Your task to perform on an android device: See recent photos Image 0: 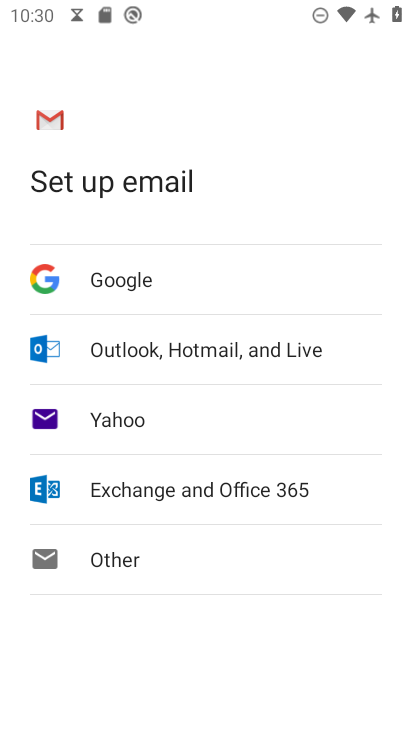
Step 0: press home button
Your task to perform on an android device: See recent photos Image 1: 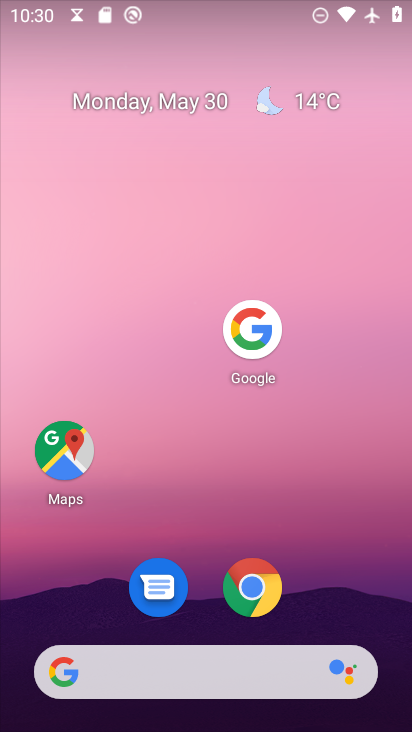
Step 1: drag from (208, 664) to (317, 103)
Your task to perform on an android device: See recent photos Image 2: 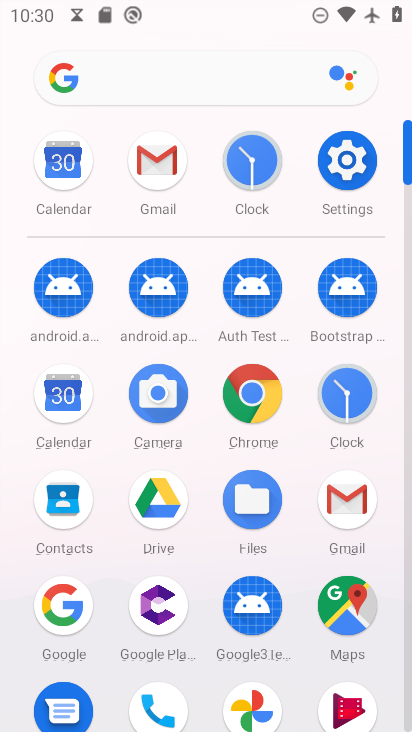
Step 2: drag from (207, 657) to (302, 259)
Your task to perform on an android device: See recent photos Image 3: 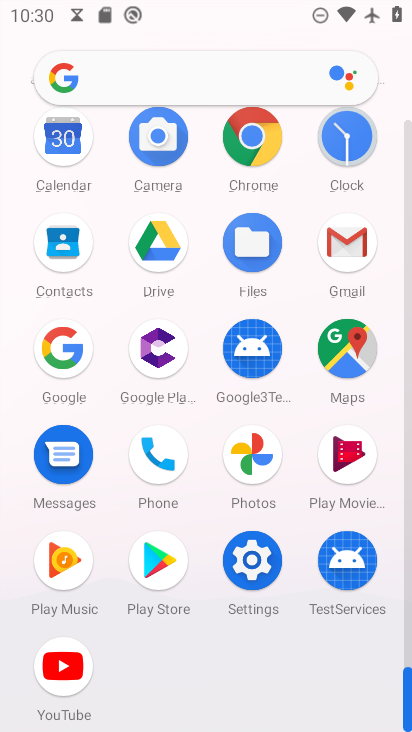
Step 3: click (256, 447)
Your task to perform on an android device: See recent photos Image 4: 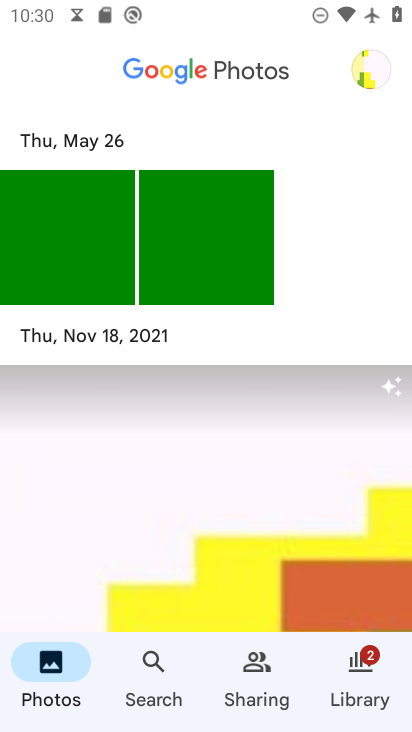
Step 4: click (145, 687)
Your task to perform on an android device: See recent photos Image 5: 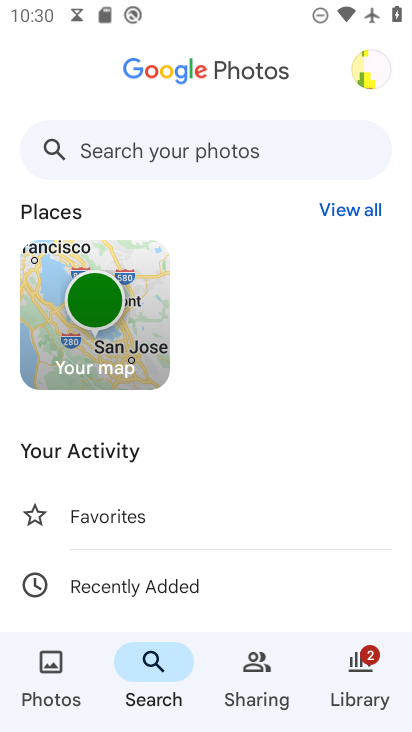
Step 5: drag from (245, 544) to (369, 240)
Your task to perform on an android device: See recent photos Image 6: 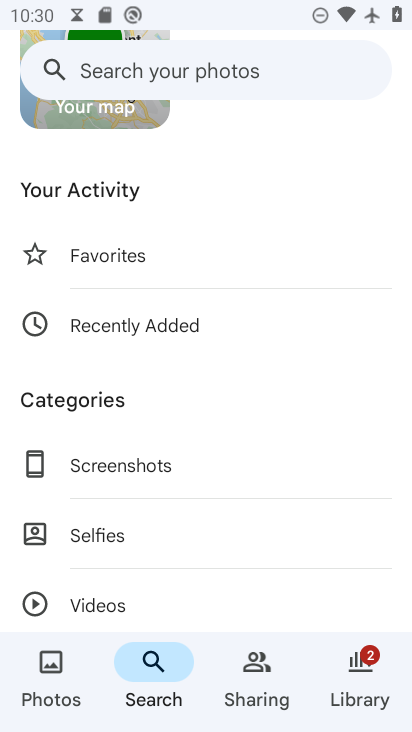
Step 6: click (159, 331)
Your task to perform on an android device: See recent photos Image 7: 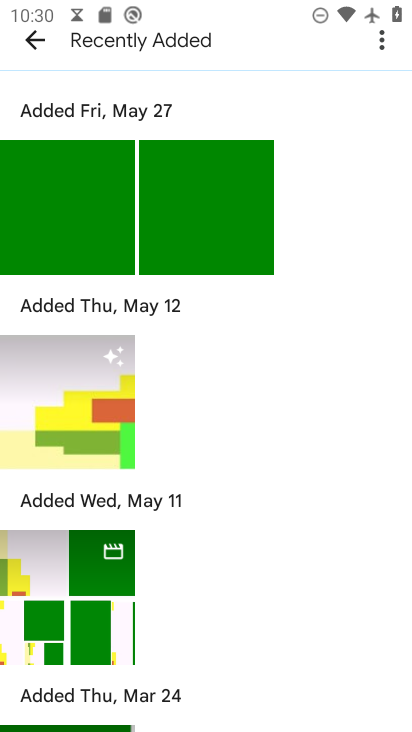
Step 7: task complete